Your task to perform on an android device: open app "PUBG MOBILE" (install if not already installed) Image 0: 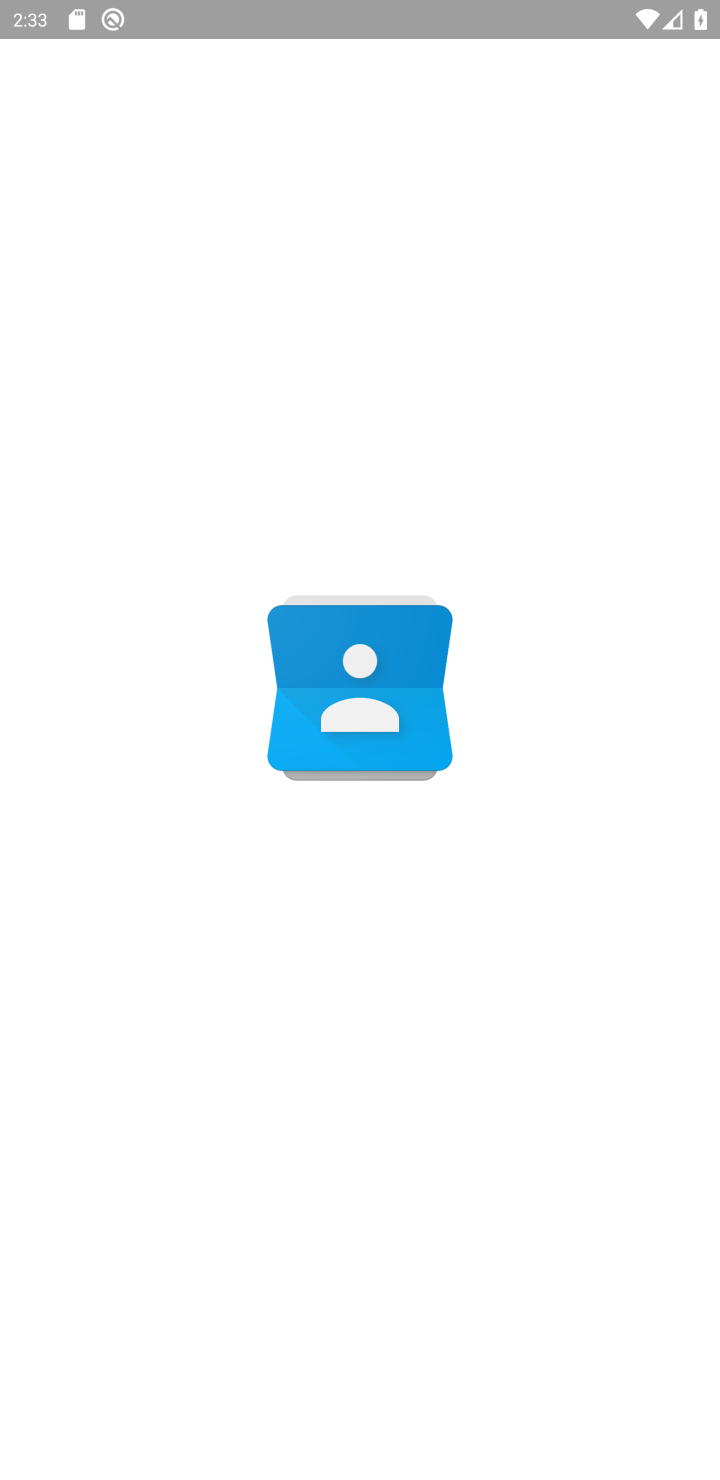
Step 0: click (293, 113)
Your task to perform on an android device: open app "PUBG MOBILE" (install if not already installed) Image 1: 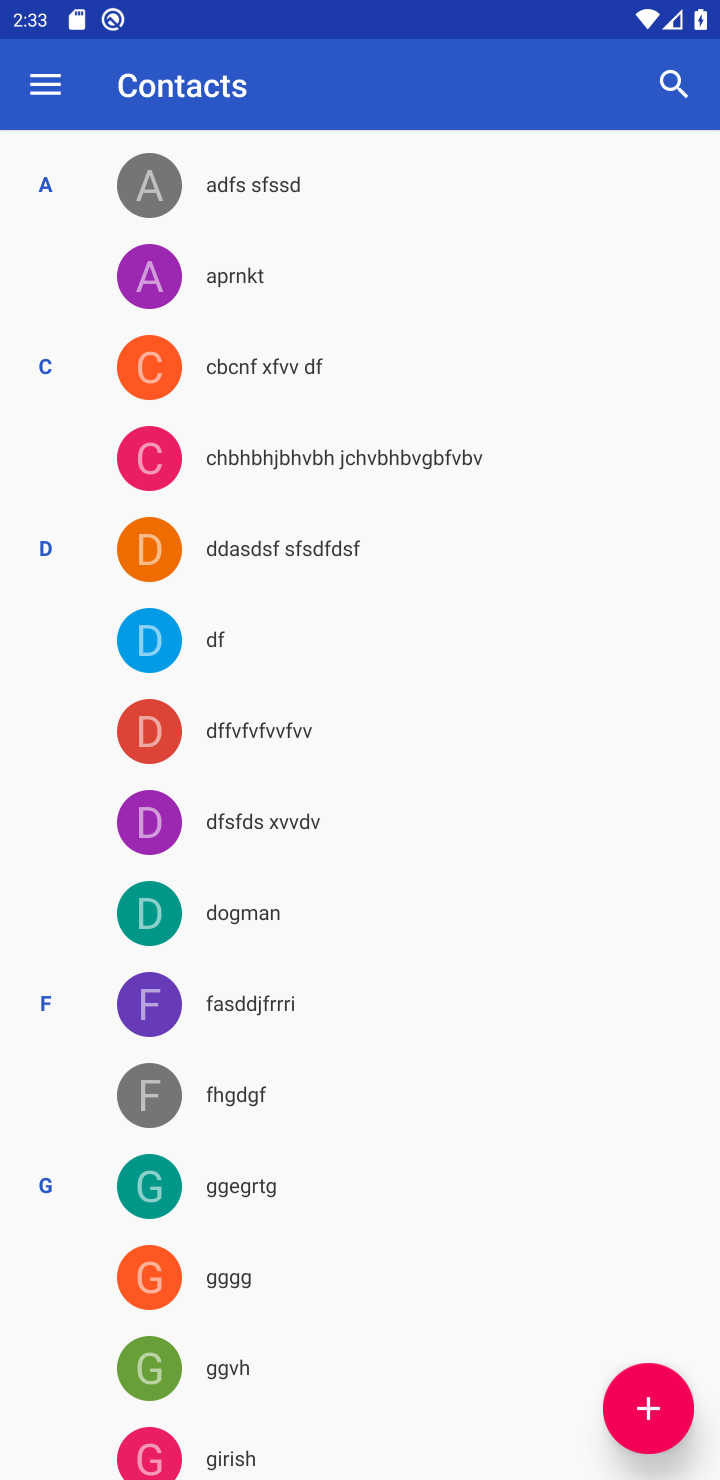
Step 1: press home button
Your task to perform on an android device: open app "PUBG MOBILE" (install if not already installed) Image 2: 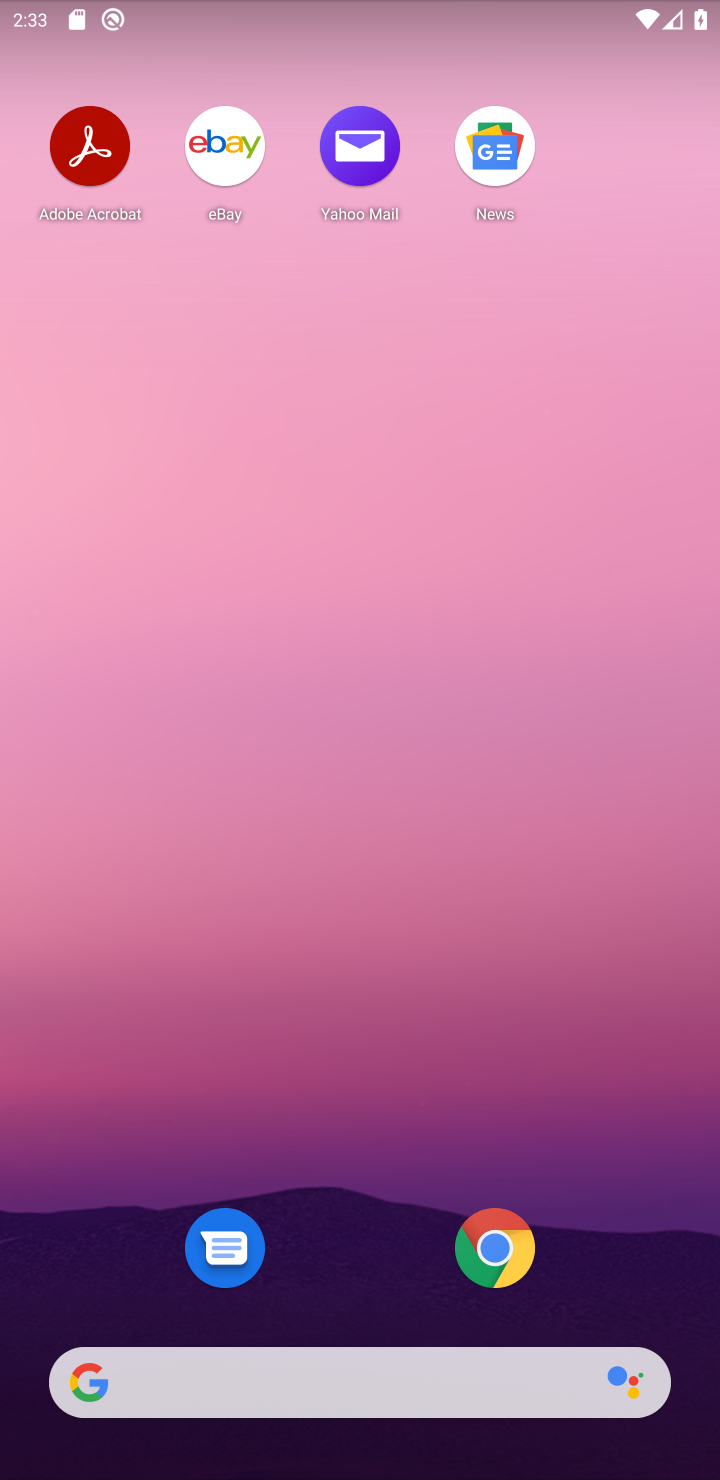
Step 2: drag from (338, 1245) to (355, 7)
Your task to perform on an android device: open app "PUBG MOBILE" (install if not already installed) Image 3: 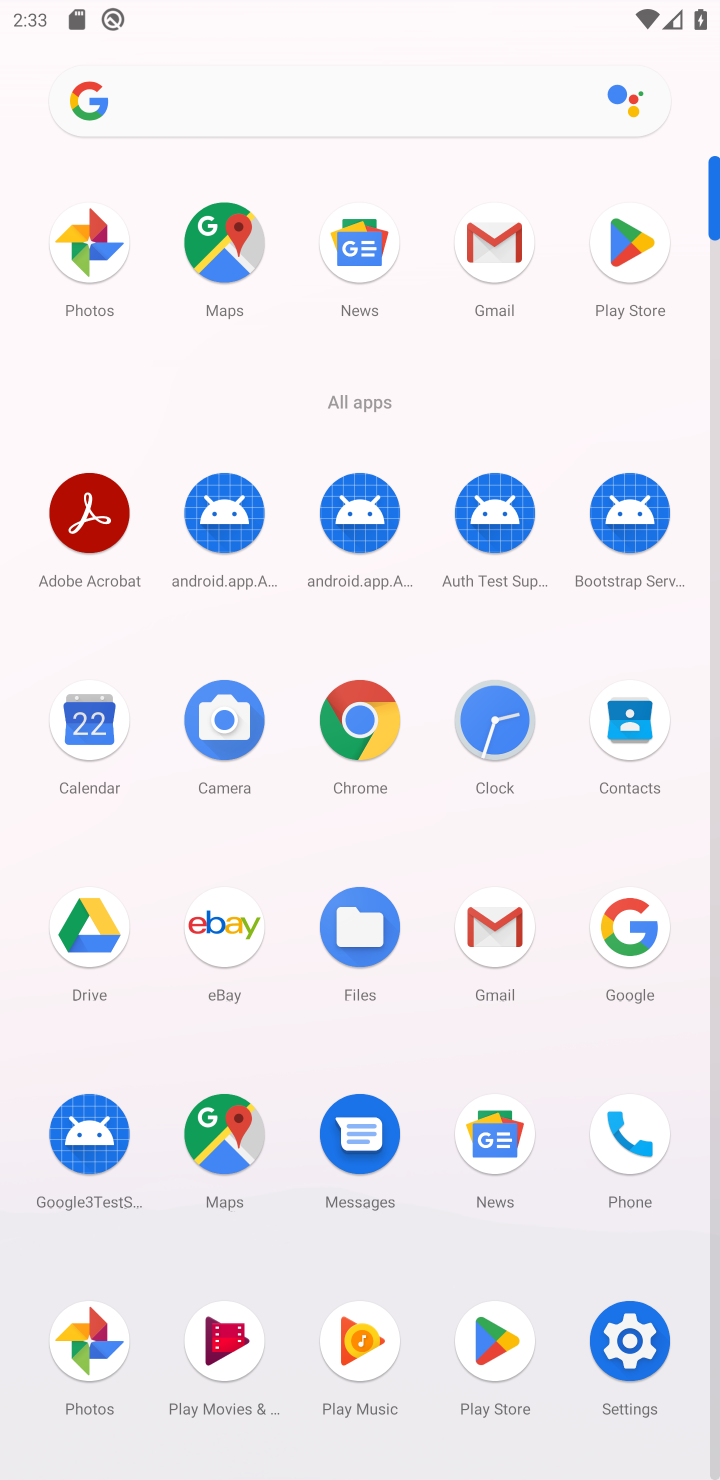
Step 3: click (643, 263)
Your task to perform on an android device: open app "PUBG MOBILE" (install if not already installed) Image 4: 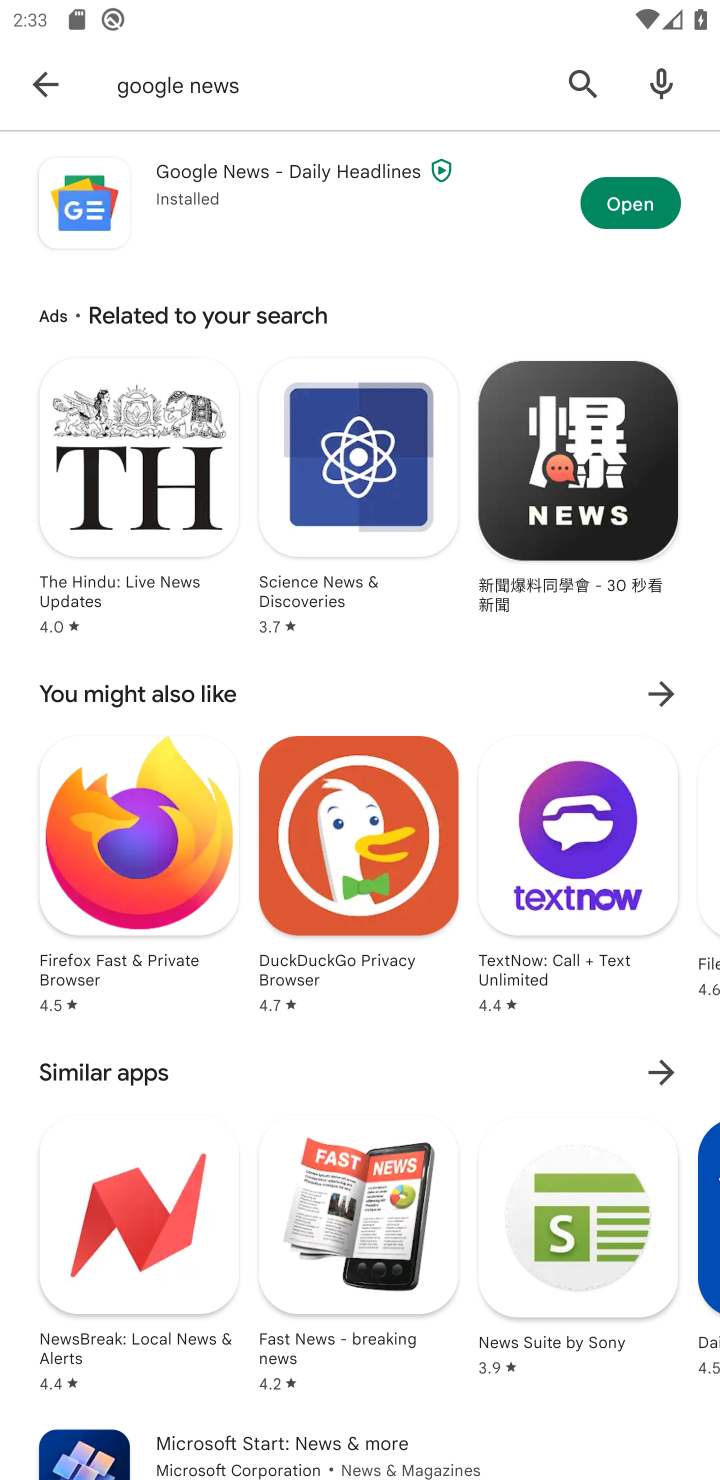
Step 4: click (195, 81)
Your task to perform on an android device: open app "PUBG MOBILE" (install if not already installed) Image 5: 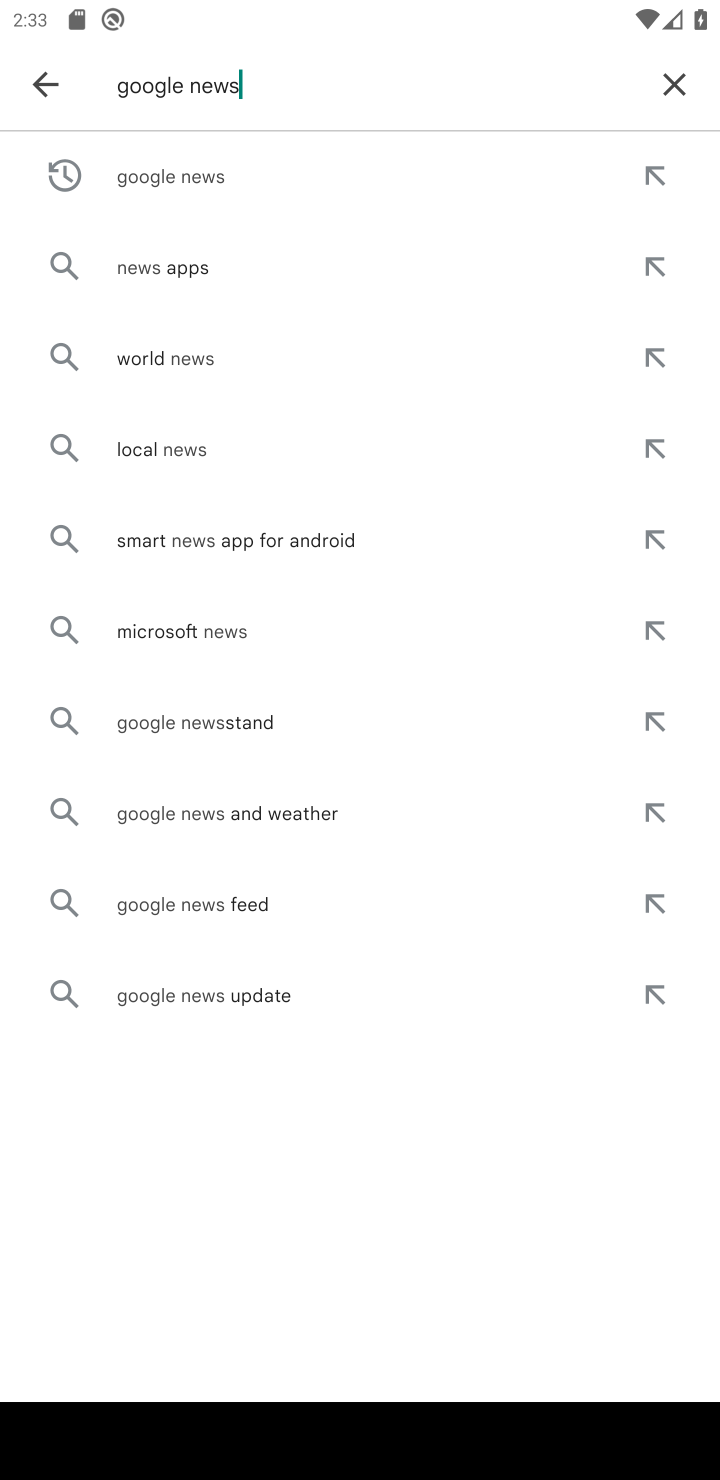
Step 5: click (667, 81)
Your task to perform on an android device: open app "PUBG MOBILE" (install if not already installed) Image 6: 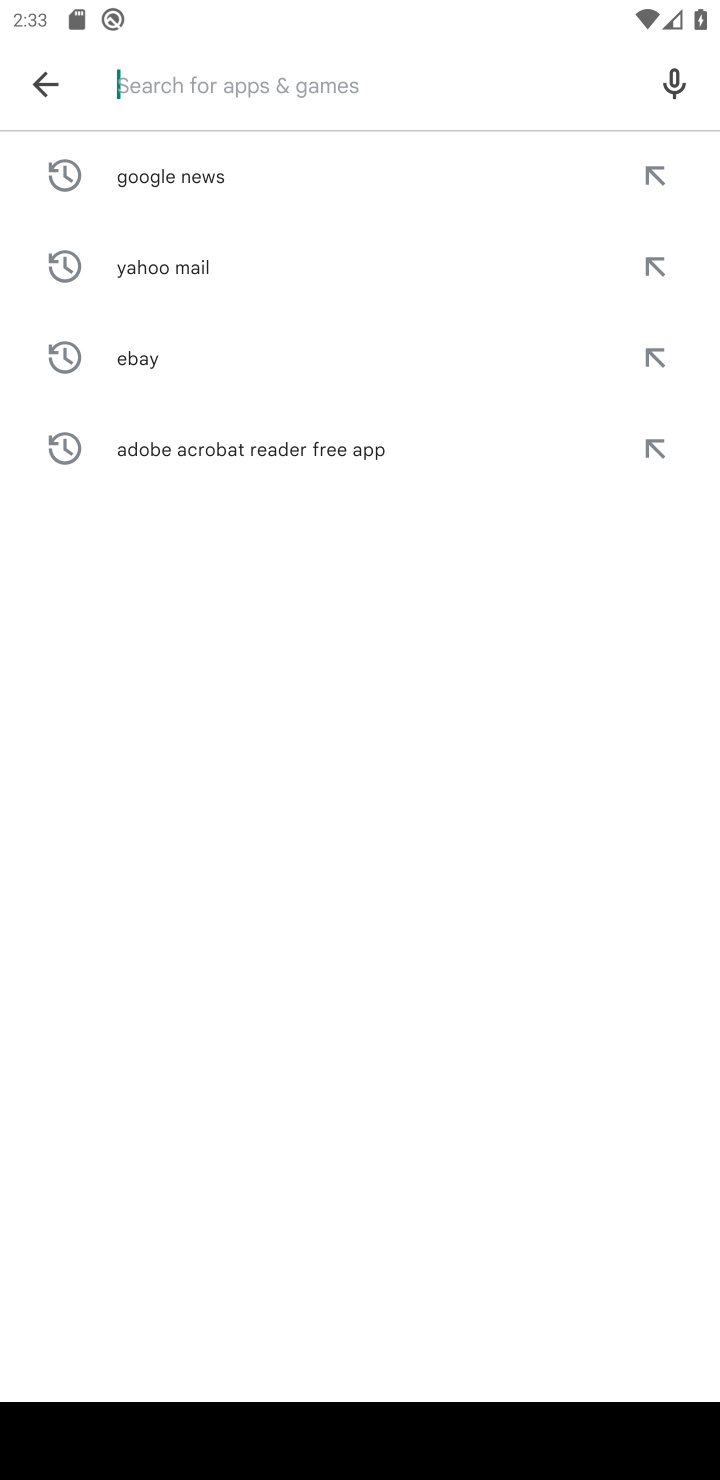
Step 6: type "PUBG mobile"
Your task to perform on an android device: open app "PUBG MOBILE" (install if not already installed) Image 7: 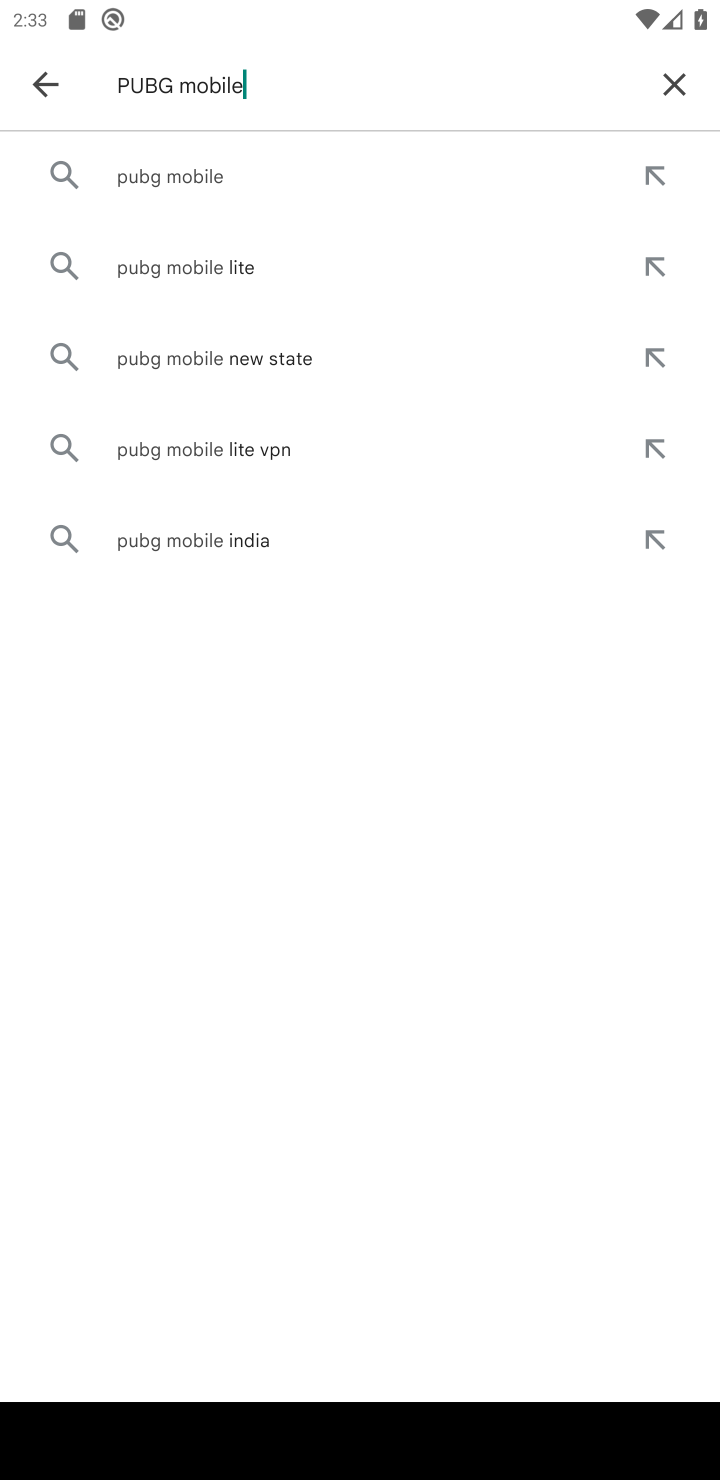
Step 7: click (197, 186)
Your task to perform on an android device: open app "PUBG MOBILE" (install if not already installed) Image 8: 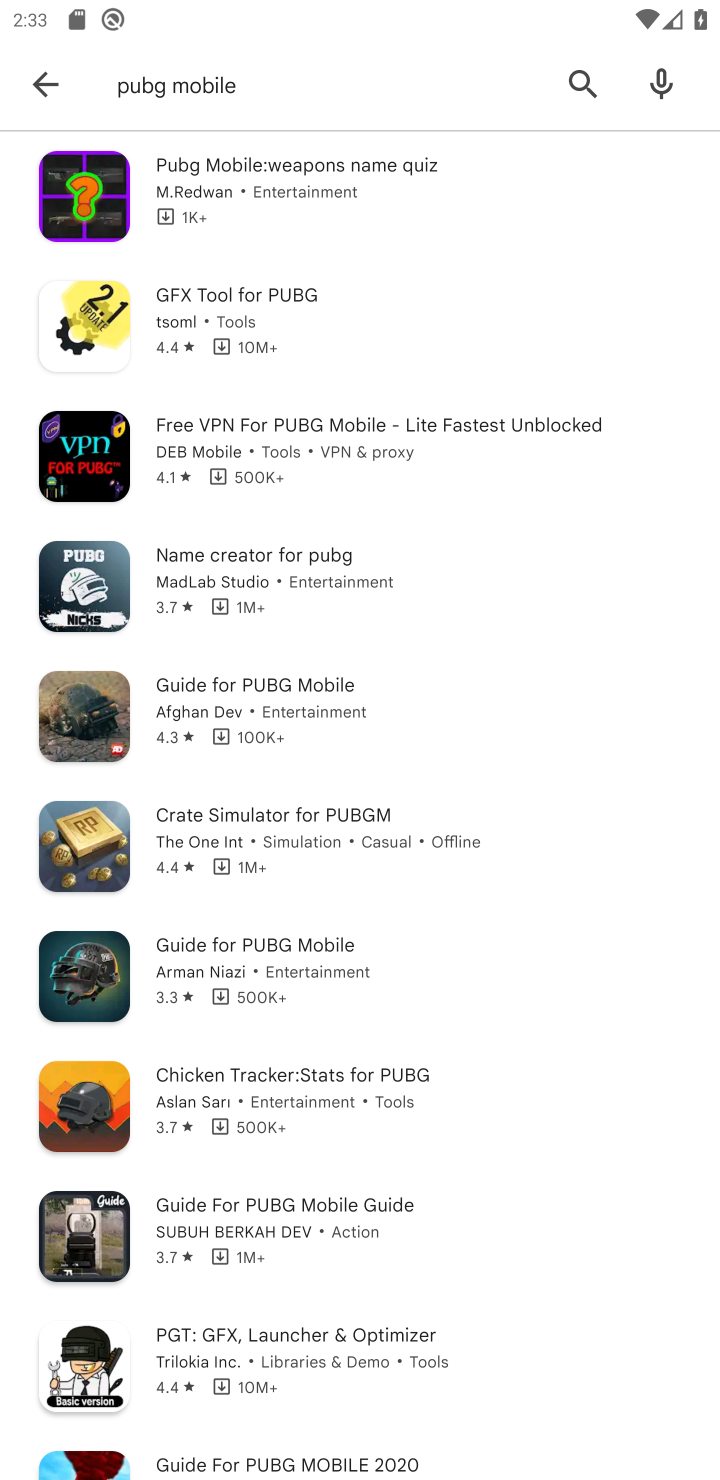
Step 8: task complete